Your task to perform on an android device: move an email to a new category in the gmail app Image 0: 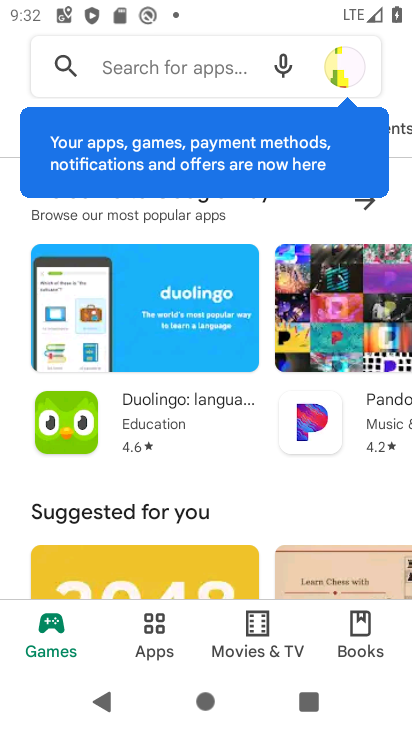
Step 0: press home button
Your task to perform on an android device: move an email to a new category in the gmail app Image 1: 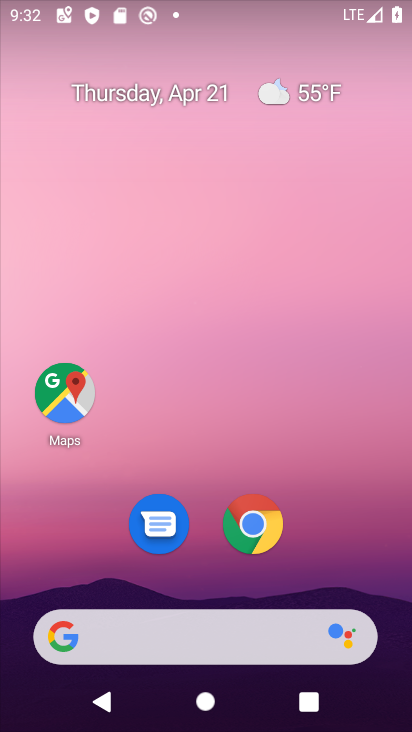
Step 1: drag from (221, 452) to (223, 29)
Your task to perform on an android device: move an email to a new category in the gmail app Image 2: 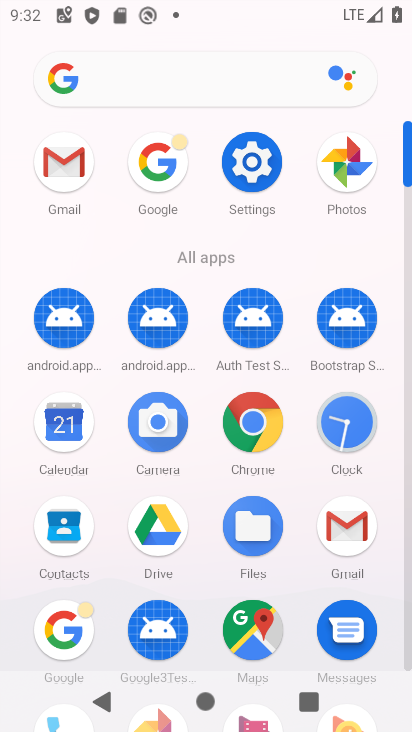
Step 2: click (57, 166)
Your task to perform on an android device: move an email to a new category in the gmail app Image 3: 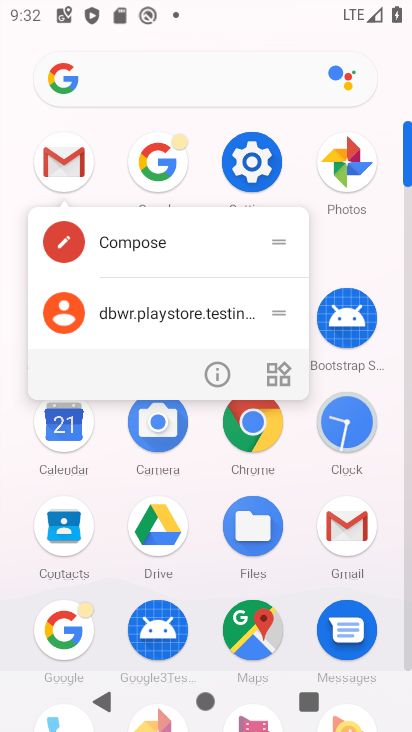
Step 3: click (60, 159)
Your task to perform on an android device: move an email to a new category in the gmail app Image 4: 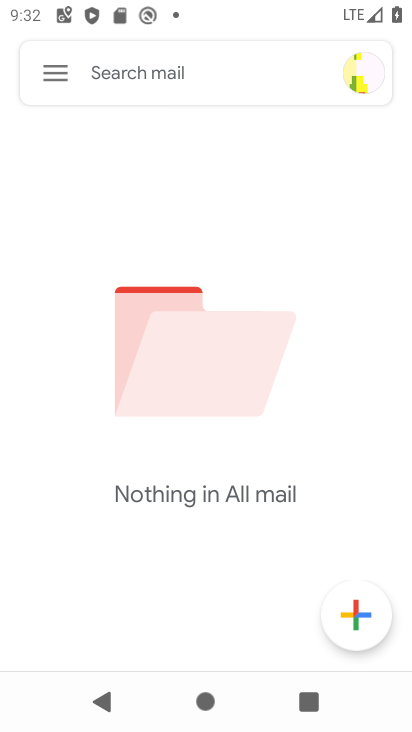
Step 4: task complete